Your task to perform on an android device: open app "LiveIn - Share Your Moment" (install if not already installed) Image 0: 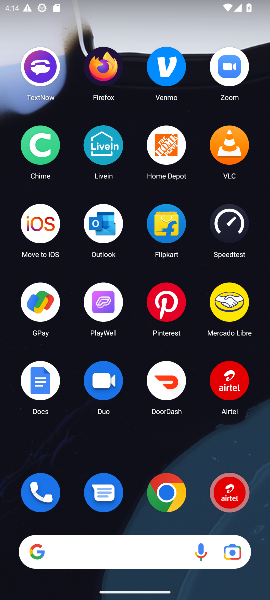
Step 0: drag from (139, 489) to (142, 151)
Your task to perform on an android device: open app "LiveIn - Share Your Moment" (install if not already installed) Image 1: 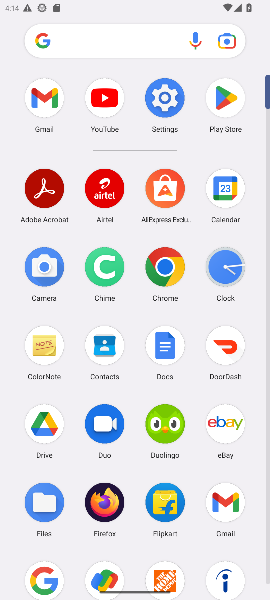
Step 1: click (240, 102)
Your task to perform on an android device: open app "LiveIn - Share Your Moment" (install if not already installed) Image 2: 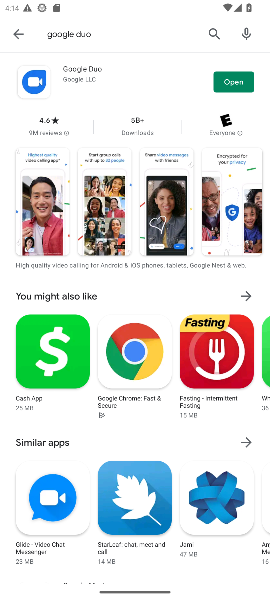
Step 2: click (214, 42)
Your task to perform on an android device: open app "LiveIn - Share Your Moment" (install if not already installed) Image 3: 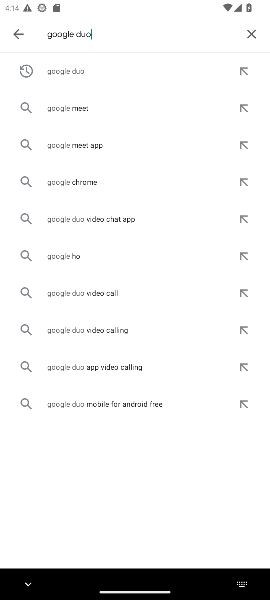
Step 3: click (246, 37)
Your task to perform on an android device: open app "LiveIn - Share Your Moment" (install if not already installed) Image 4: 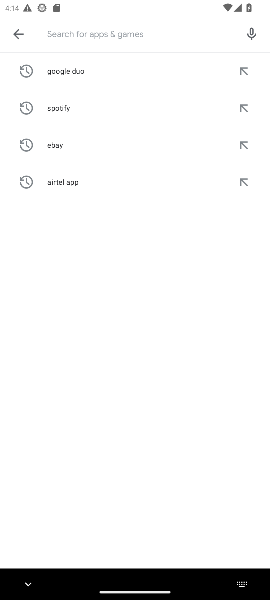
Step 4: type "reddit"
Your task to perform on an android device: open app "LiveIn - Share Your Moment" (install if not already installed) Image 5: 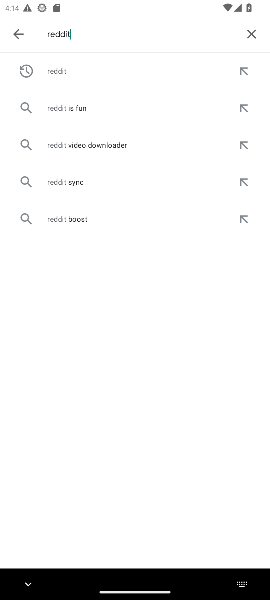
Step 5: click (78, 70)
Your task to perform on an android device: open app "LiveIn - Share Your Moment" (install if not already installed) Image 6: 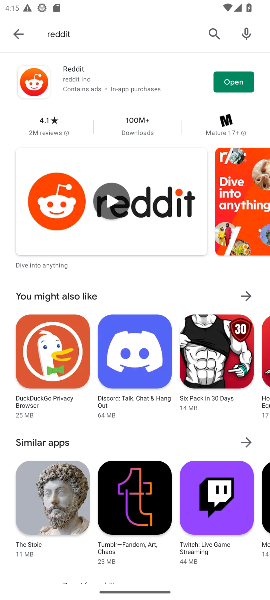
Step 6: task complete